Your task to perform on an android device: toggle data saver in the chrome app Image 0: 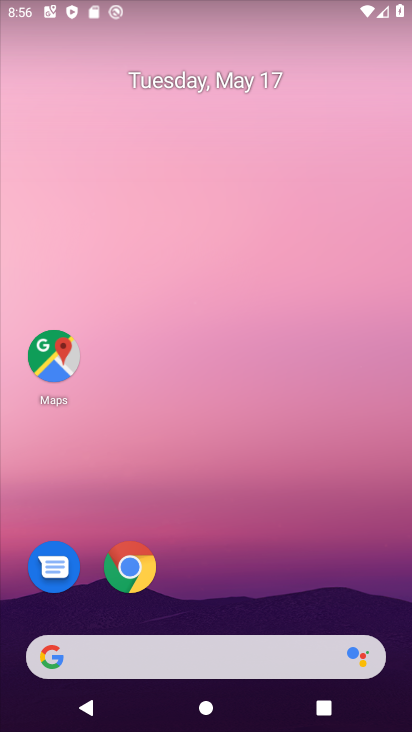
Step 0: click (125, 575)
Your task to perform on an android device: toggle data saver in the chrome app Image 1: 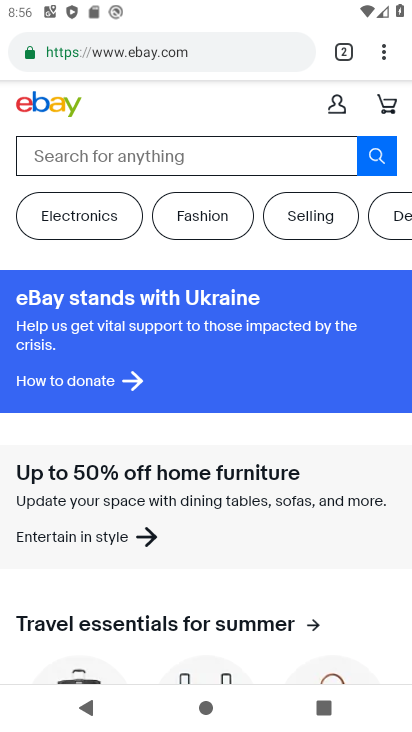
Step 1: click (380, 47)
Your task to perform on an android device: toggle data saver in the chrome app Image 2: 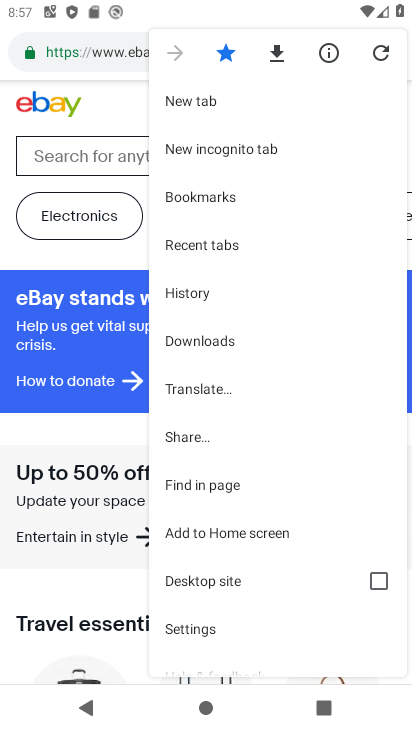
Step 2: click (195, 620)
Your task to perform on an android device: toggle data saver in the chrome app Image 3: 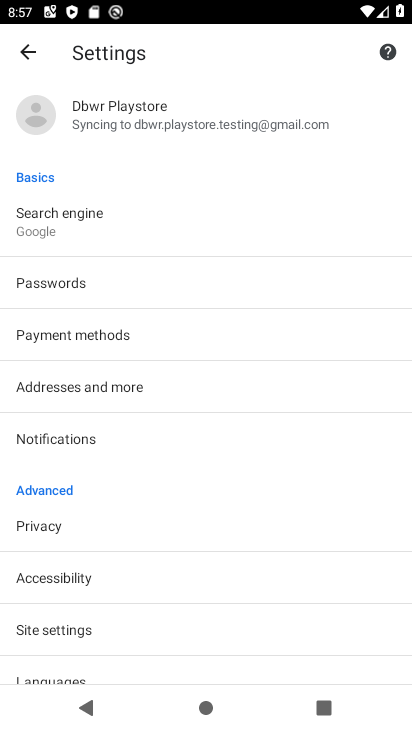
Step 3: drag from (142, 597) to (108, 277)
Your task to perform on an android device: toggle data saver in the chrome app Image 4: 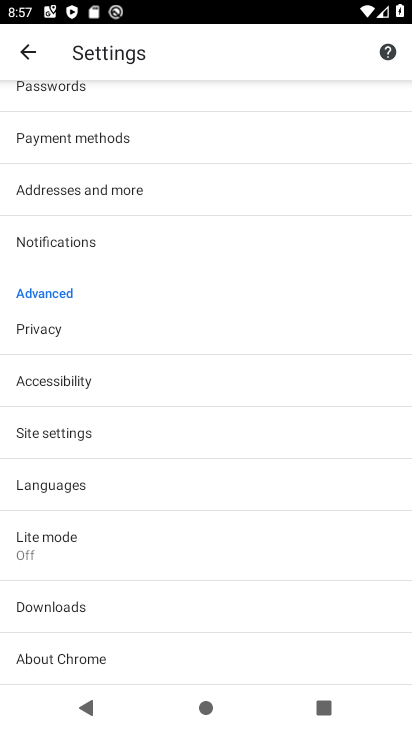
Step 4: click (50, 544)
Your task to perform on an android device: toggle data saver in the chrome app Image 5: 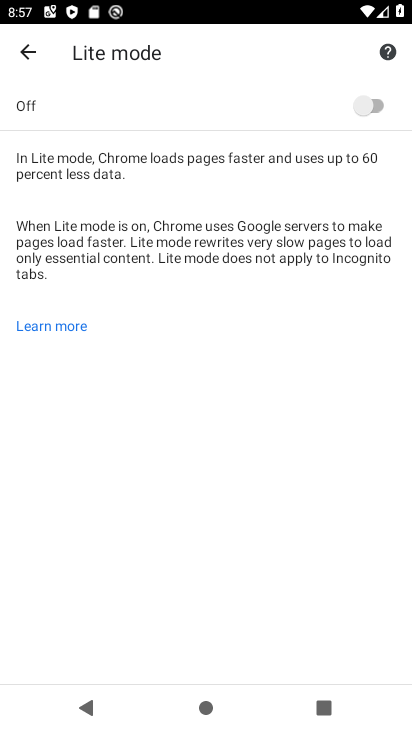
Step 5: click (362, 102)
Your task to perform on an android device: toggle data saver in the chrome app Image 6: 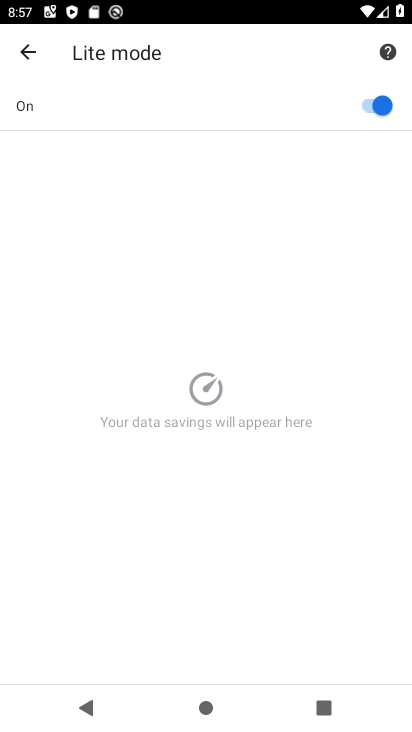
Step 6: task complete